Your task to perform on an android device: What's the weather? Image 0: 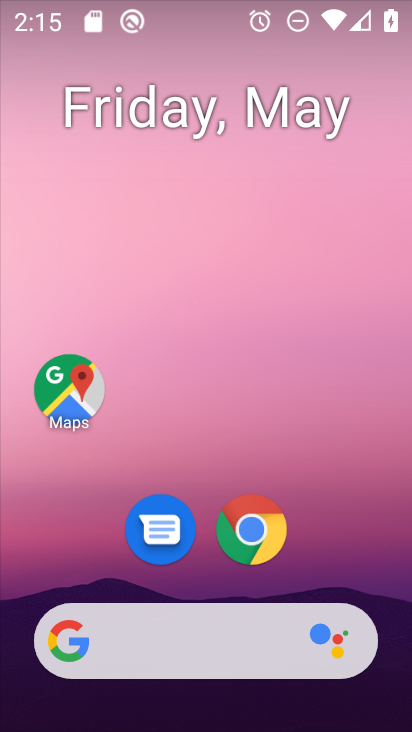
Step 0: drag from (20, 276) to (342, 199)
Your task to perform on an android device: What's the weather? Image 1: 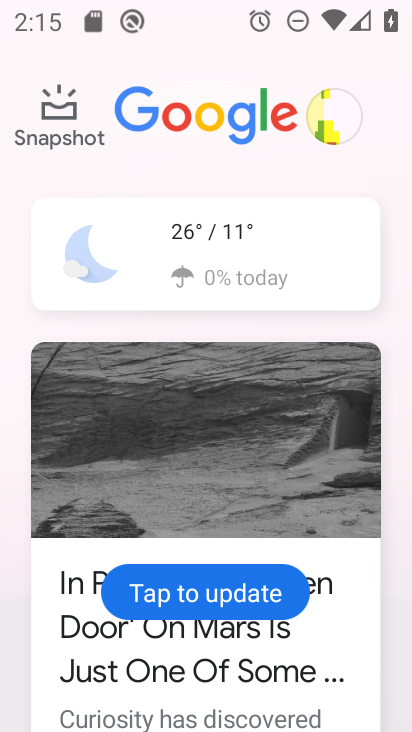
Step 1: click (219, 262)
Your task to perform on an android device: What's the weather? Image 2: 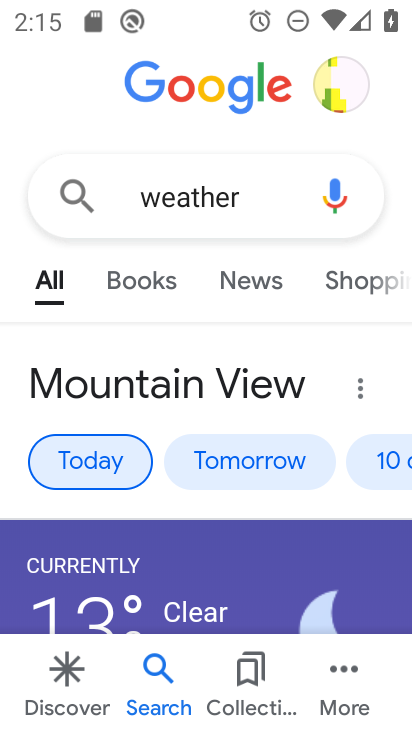
Step 2: click (84, 467)
Your task to perform on an android device: What's the weather? Image 3: 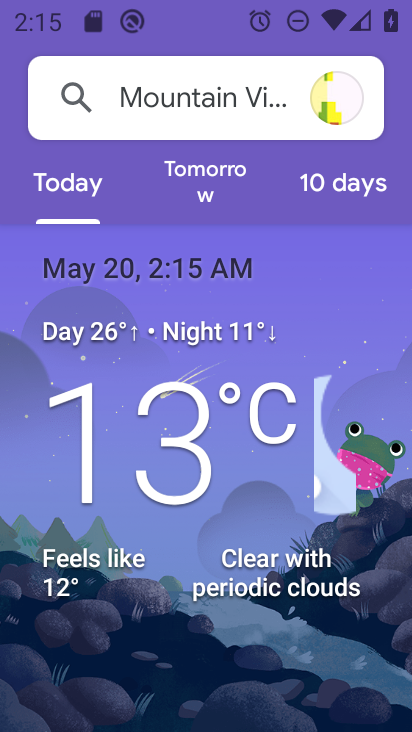
Step 3: task complete